Your task to perform on an android device: turn off data saver in the chrome app Image 0: 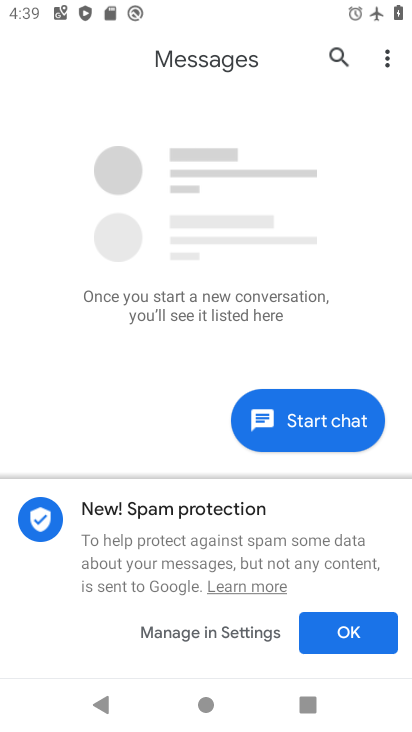
Step 0: press home button
Your task to perform on an android device: turn off data saver in the chrome app Image 1: 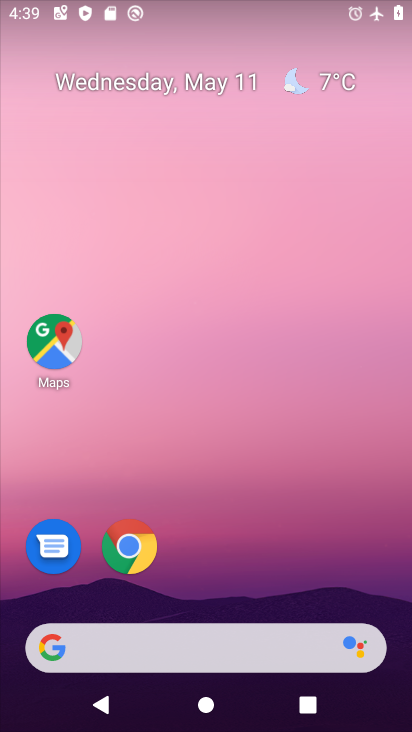
Step 1: drag from (211, 666) to (269, 0)
Your task to perform on an android device: turn off data saver in the chrome app Image 2: 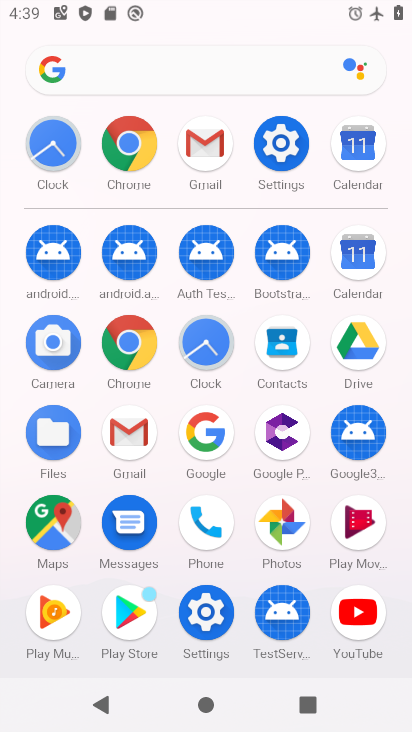
Step 2: click (121, 347)
Your task to perform on an android device: turn off data saver in the chrome app Image 3: 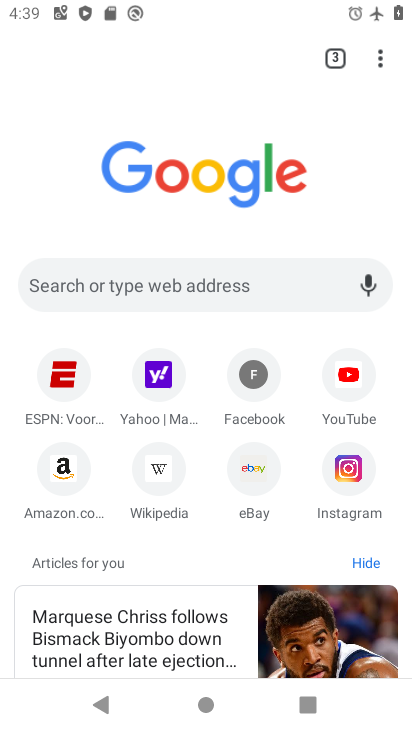
Step 3: drag from (375, 52) to (166, 495)
Your task to perform on an android device: turn off data saver in the chrome app Image 4: 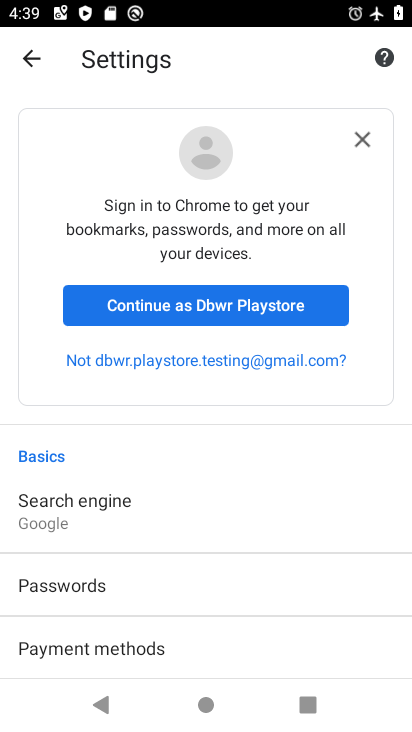
Step 4: drag from (251, 598) to (261, 74)
Your task to perform on an android device: turn off data saver in the chrome app Image 5: 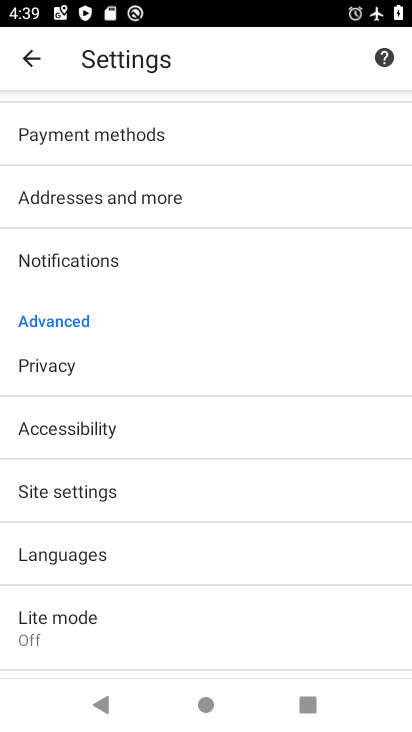
Step 5: drag from (212, 647) to (251, 60)
Your task to perform on an android device: turn off data saver in the chrome app Image 6: 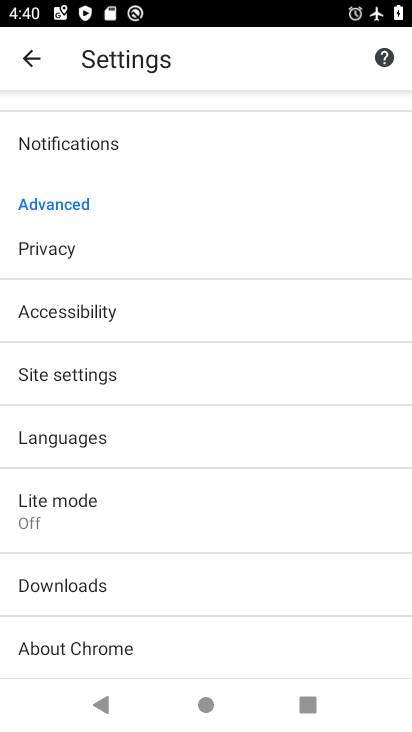
Step 6: click (163, 522)
Your task to perform on an android device: turn off data saver in the chrome app Image 7: 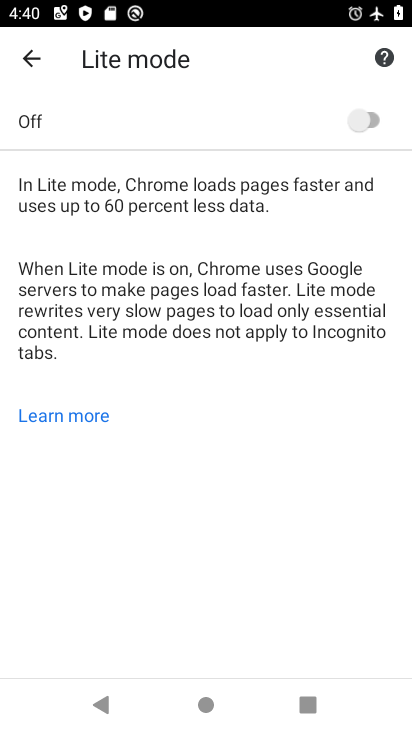
Step 7: task complete